Your task to perform on an android device: View the shopping cart on newegg. Search for dell alienware on newegg, select the first entry, add it to the cart, then select checkout. Image 0: 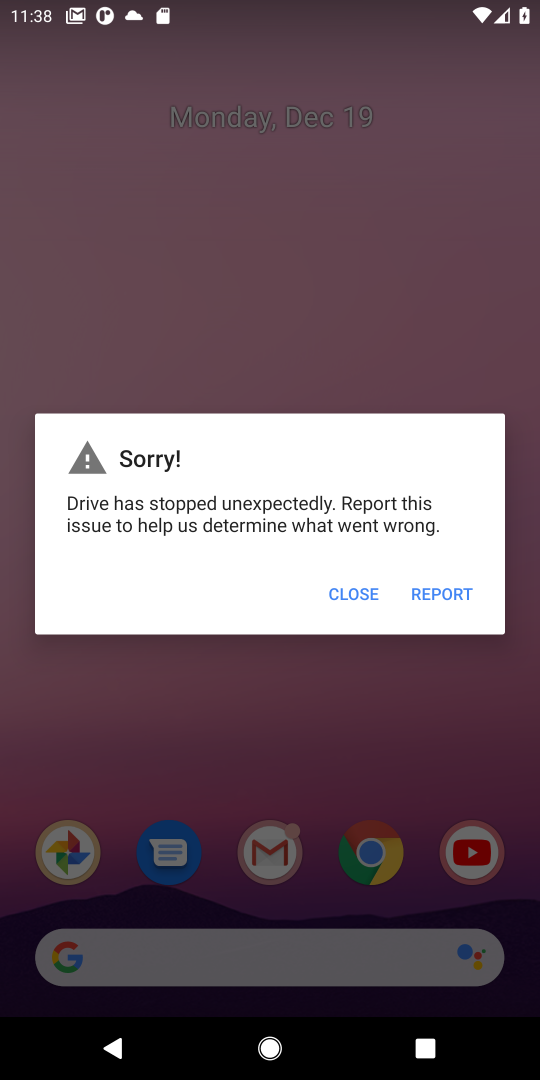
Step 0: press home button
Your task to perform on an android device: View the shopping cart on newegg. Search for dell alienware on newegg, select the first entry, add it to the cart, then select checkout. Image 1: 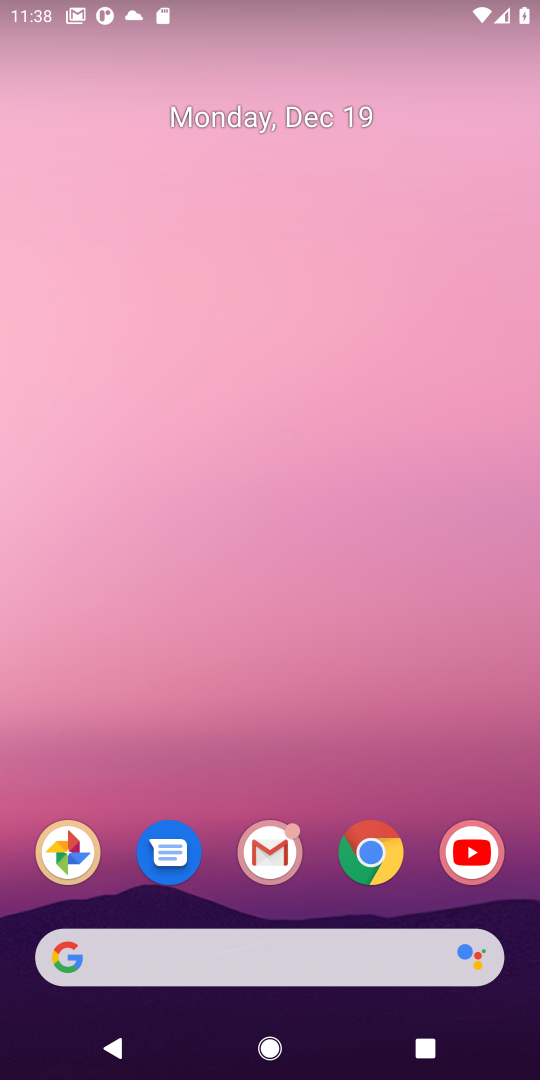
Step 1: click (370, 860)
Your task to perform on an android device: View the shopping cart on newegg. Search for dell alienware on newegg, select the first entry, add it to the cart, then select checkout. Image 2: 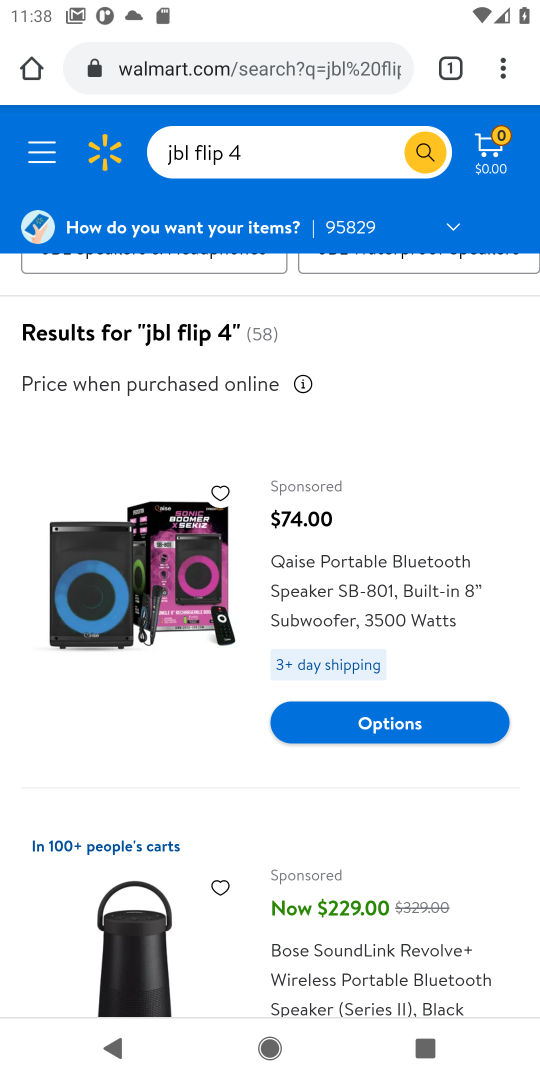
Step 2: click (198, 78)
Your task to perform on an android device: View the shopping cart on newegg. Search for dell alienware on newegg, select the first entry, add it to the cart, then select checkout. Image 3: 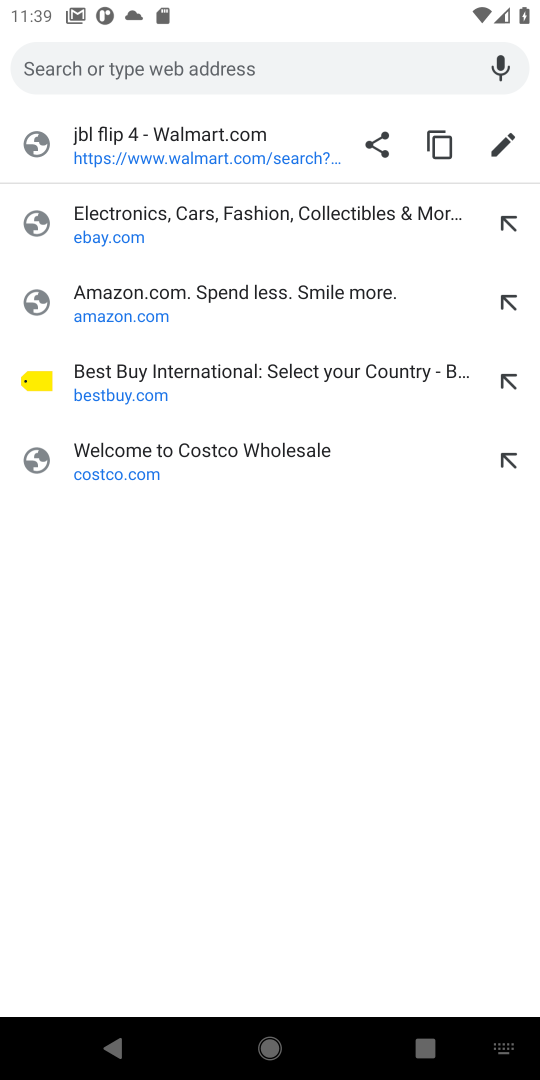
Step 3: type "newegg.com"
Your task to perform on an android device: View the shopping cart on newegg. Search for dell alienware on newegg, select the first entry, add it to the cart, then select checkout. Image 4: 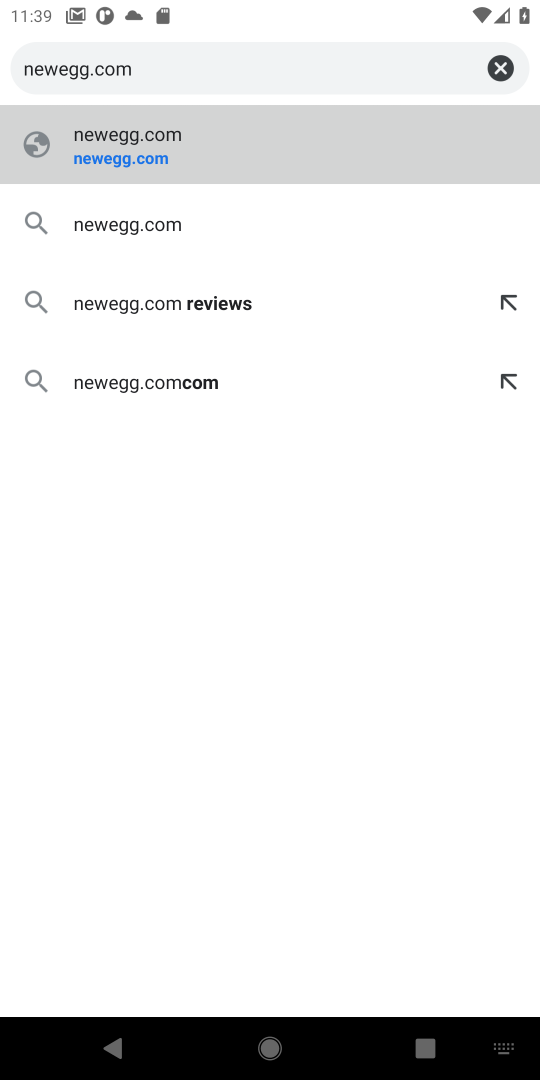
Step 4: click (127, 170)
Your task to perform on an android device: View the shopping cart on newegg. Search for dell alienware on newegg, select the first entry, add it to the cart, then select checkout. Image 5: 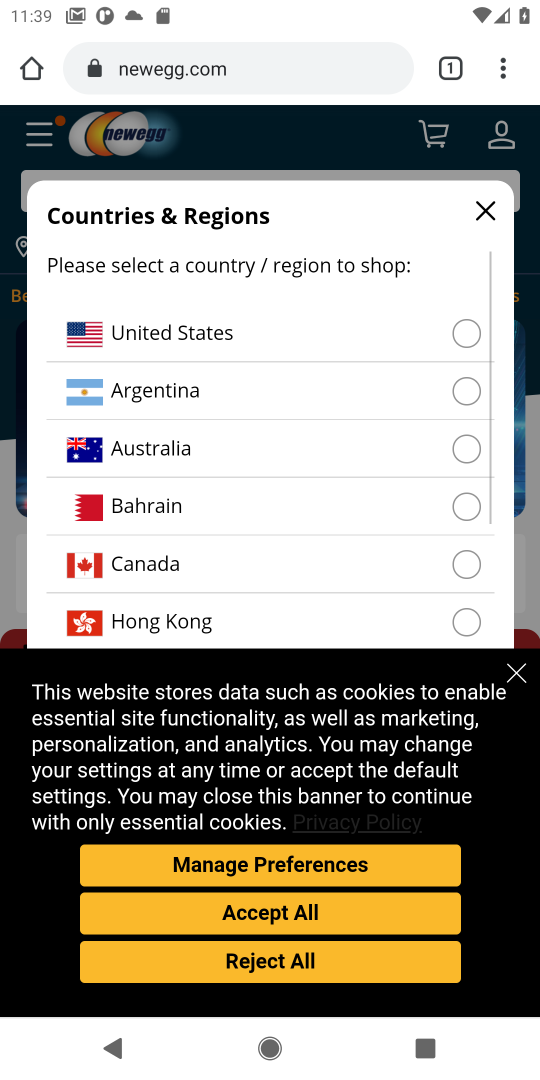
Step 5: click (515, 682)
Your task to perform on an android device: View the shopping cart on newegg. Search for dell alienware on newegg, select the first entry, add it to the cart, then select checkout. Image 6: 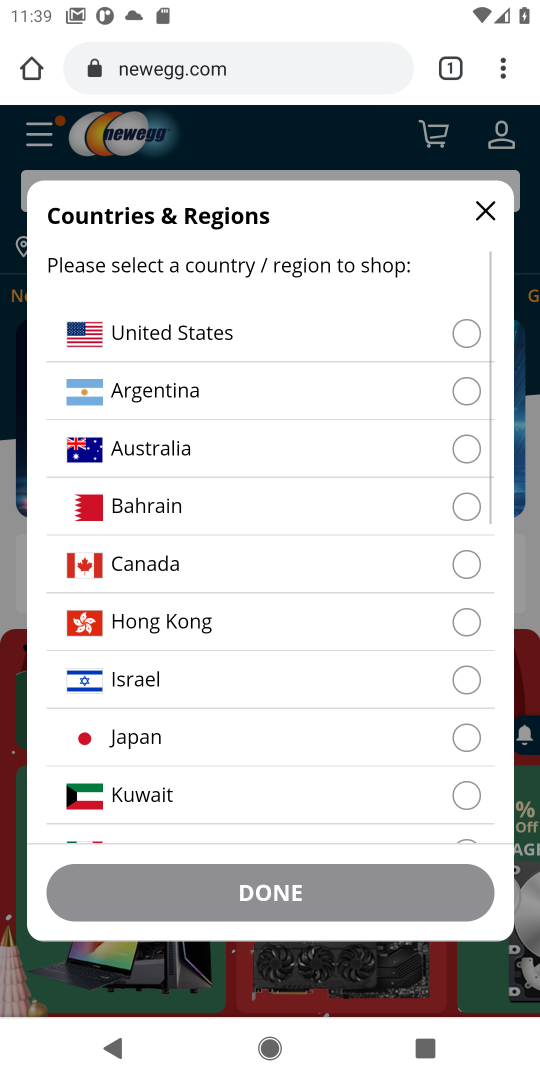
Step 6: click (116, 341)
Your task to perform on an android device: View the shopping cart on newegg. Search for dell alienware on newegg, select the first entry, add it to the cart, then select checkout. Image 7: 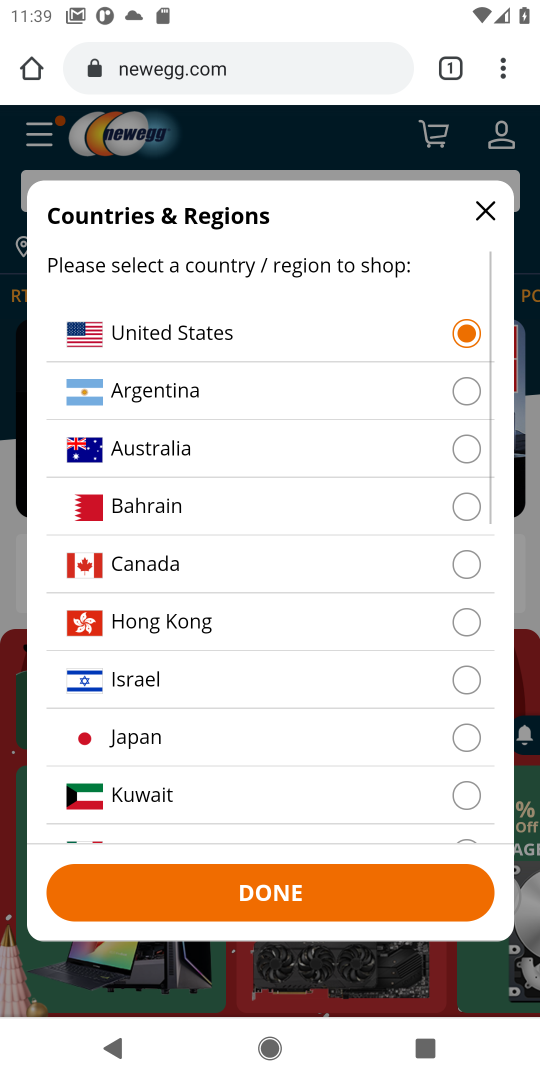
Step 7: click (299, 905)
Your task to perform on an android device: View the shopping cart on newegg. Search for dell alienware on newegg, select the first entry, add it to the cart, then select checkout. Image 8: 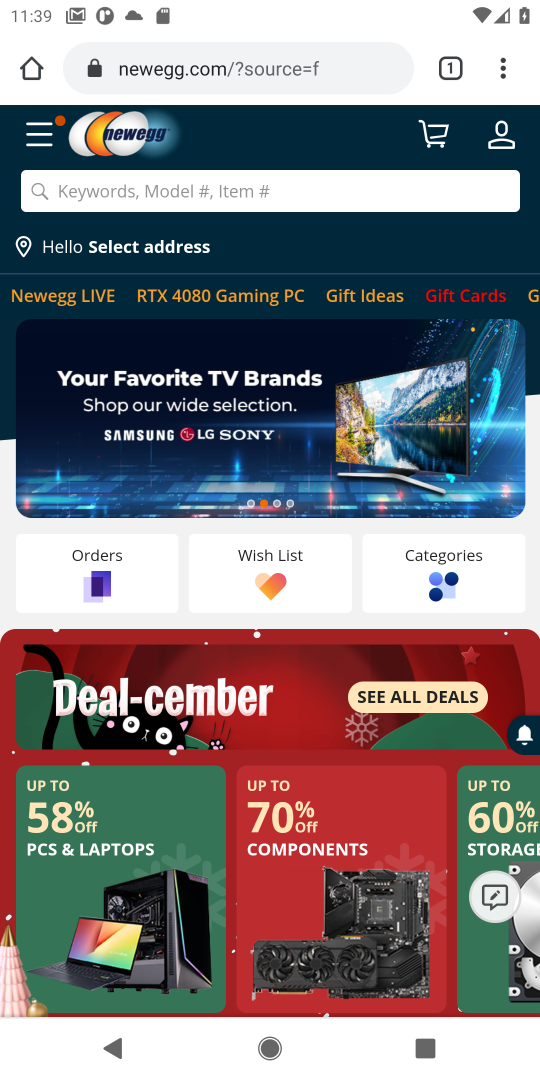
Step 8: click (434, 141)
Your task to perform on an android device: View the shopping cart on newegg. Search for dell alienware on newegg, select the first entry, add it to the cart, then select checkout. Image 9: 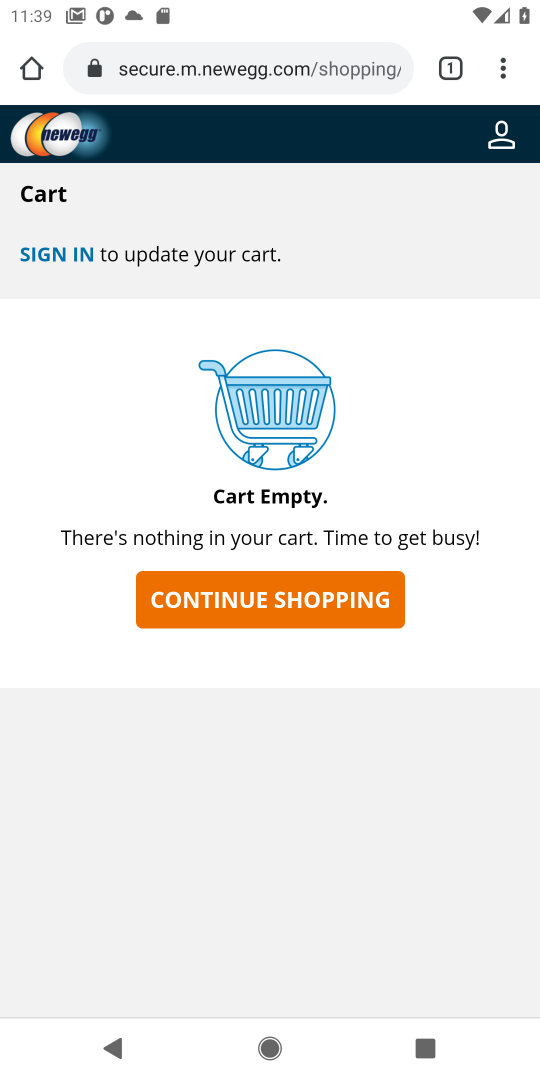
Step 9: click (299, 599)
Your task to perform on an android device: View the shopping cart on newegg. Search for dell alienware on newegg, select the first entry, add it to the cart, then select checkout. Image 10: 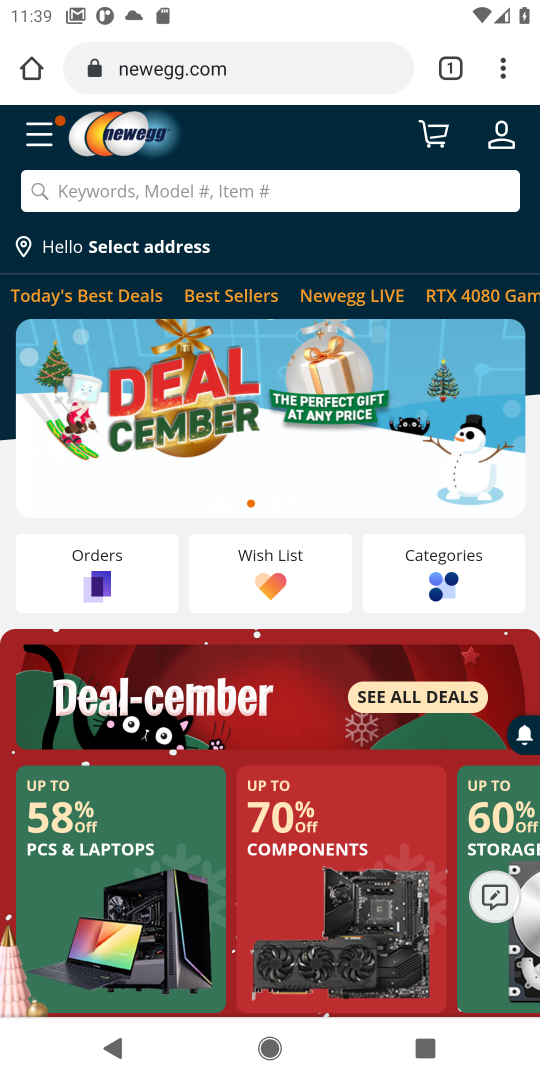
Step 10: click (108, 196)
Your task to perform on an android device: View the shopping cart on newegg. Search for dell alienware on newegg, select the first entry, add it to the cart, then select checkout. Image 11: 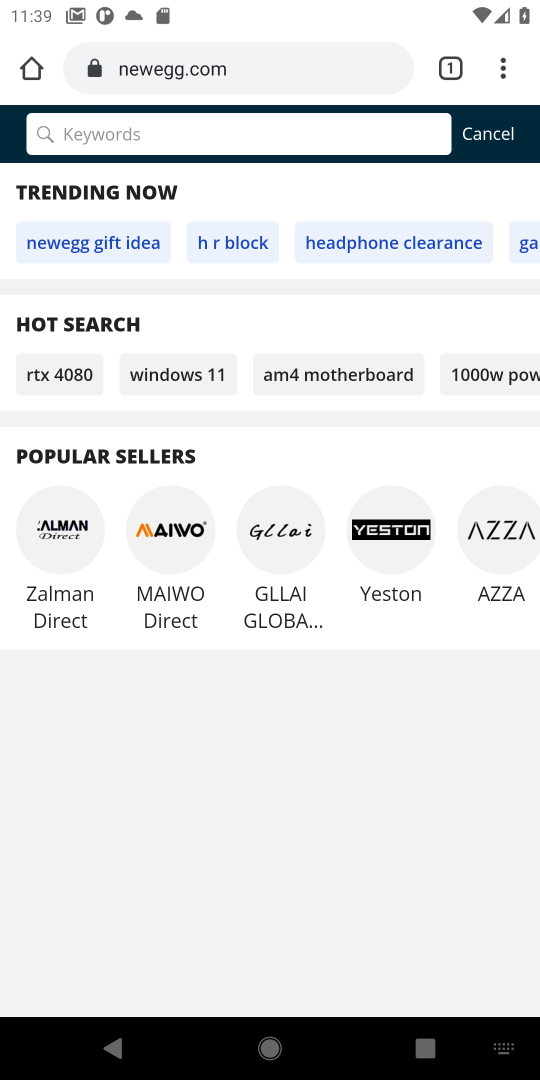
Step 11: type "dell alienware"
Your task to perform on an android device: View the shopping cart on newegg. Search for dell alienware on newegg, select the first entry, add it to the cart, then select checkout. Image 12: 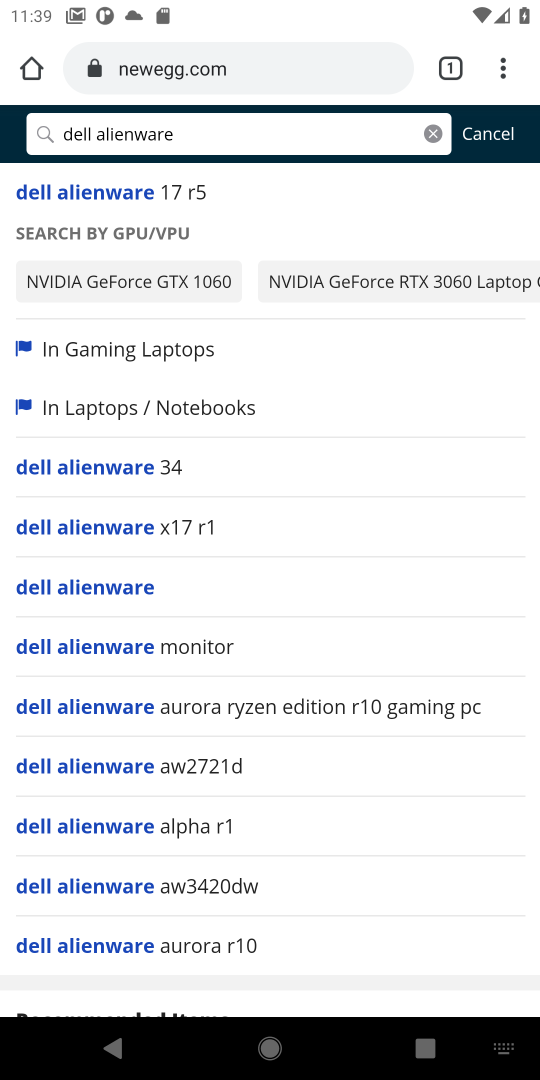
Step 12: click (80, 589)
Your task to perform on an android device: View the shopping cart on newegg. Search for dell alienware on newegg, select the first entry, add it to the cart, then select checkout. Image 13: 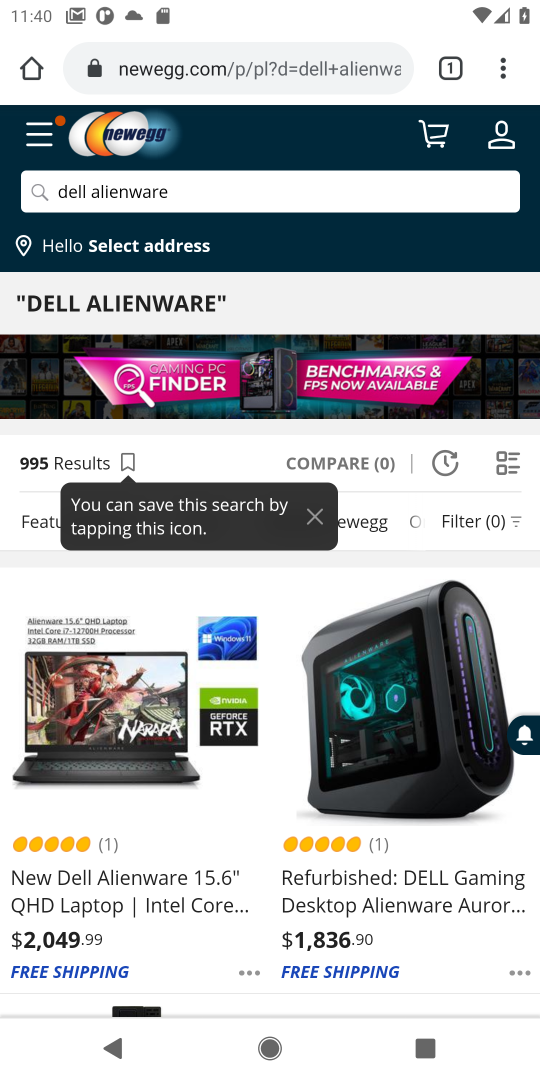
Step 13: click (95, 894)
Your task to perform on an android device: View the shopping cart on newegg. Search for dell alienware on newegg, select the first entry, add it to the cart, then select checkout. Image 14: 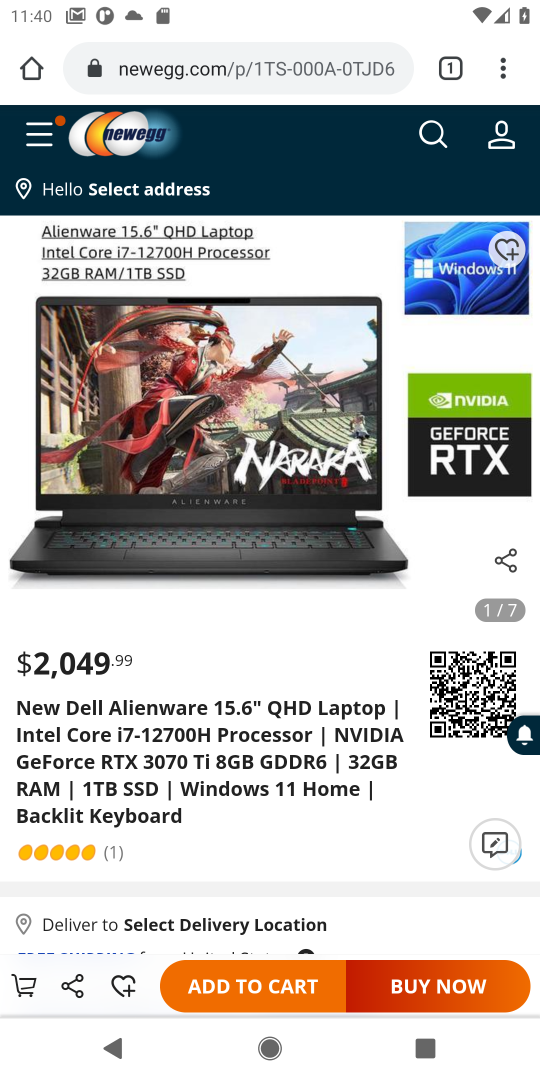
Step 14: click (258, 987)
Your task to perform on an android device: View the shopping cart on newegg. Search for dell alienware on newegg, select the first entry, add it to the cart, then select checkout. Image 15: 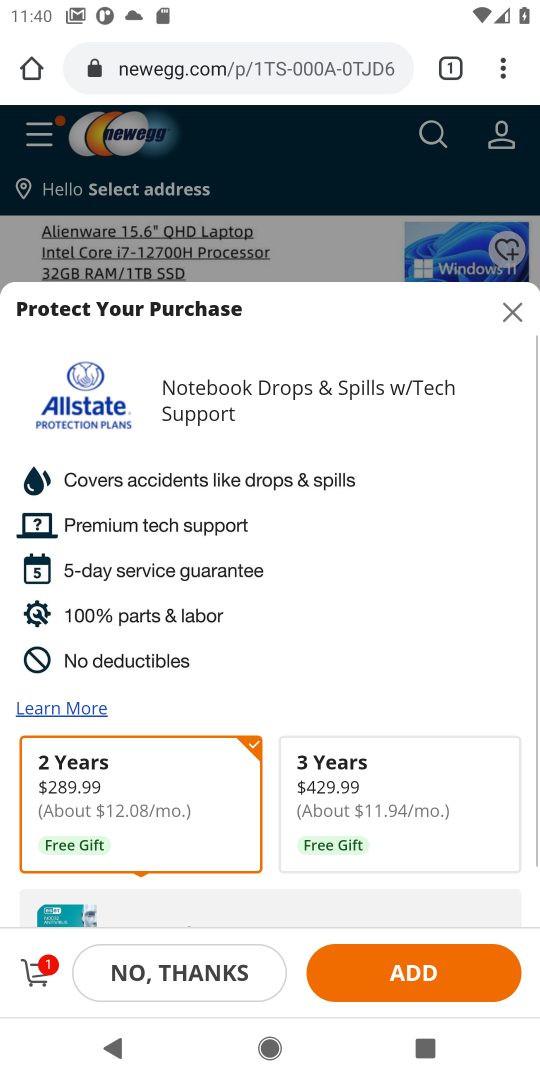
Step 15: click (39, 977)
Your task to perform on an android device: View the shopping cart on newegg. Search for dell alienware on newegg, select the first entry, add it to the cart, then select checkout. Image 16: 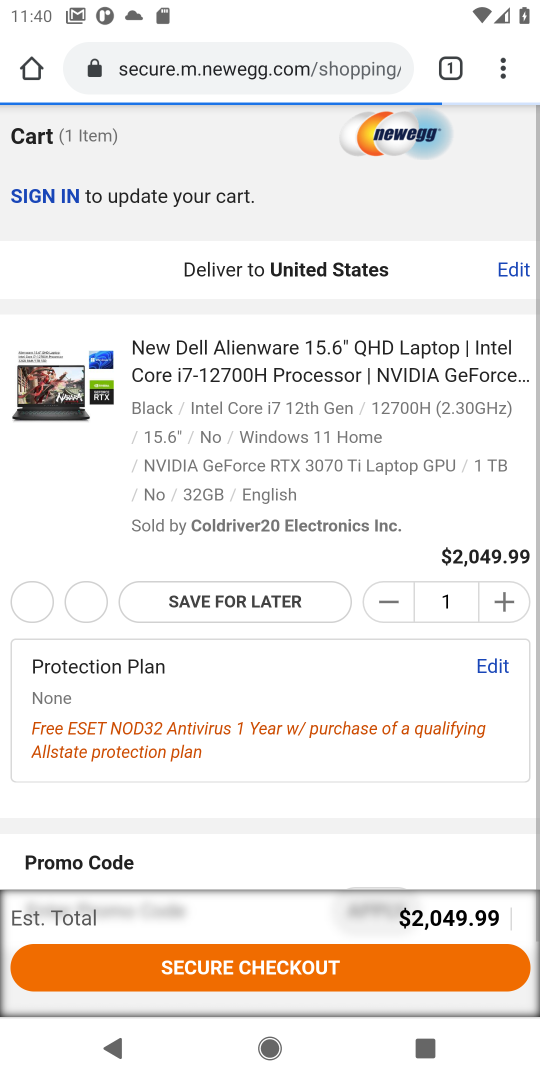
Step 16: click (166, 966)
Your task to perform on an android device: View the shopping cart on newegg. Search for dell alienware on newegg, select the first entry, add it to the cart, then select checkout. Image 17: 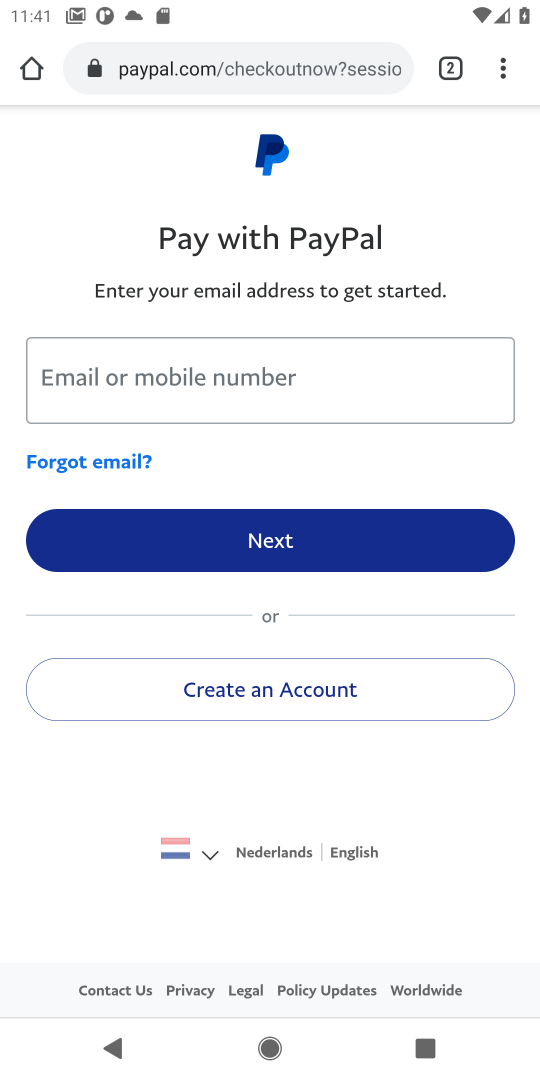
Step 17: task complete